Your task to perform on an android device: View the shopping cart on bestbuy. Search for macbook on bestbuy, select the first entry, add it to the cart, then select checkout. Image 0: 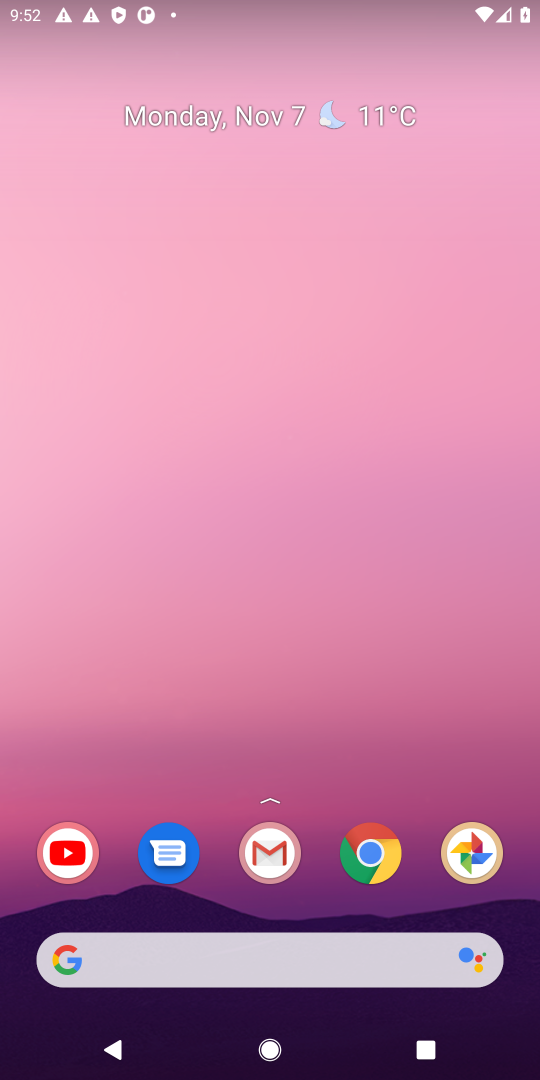
Step 0: click (216, 942)
Your task to perform on an android device: View the shopping cart on bestbuy. Search for macbook on bestbuy, select the first entry, add it to the cart, then select checkout. Image 1: 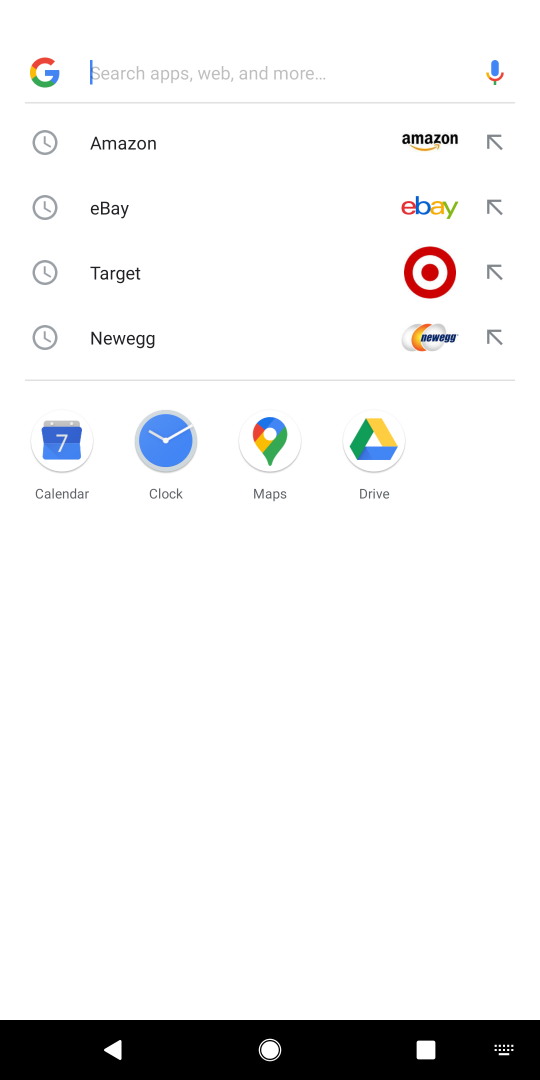
Step 1: task complete